Your task to perform on an android device: turn off location history Image 0: 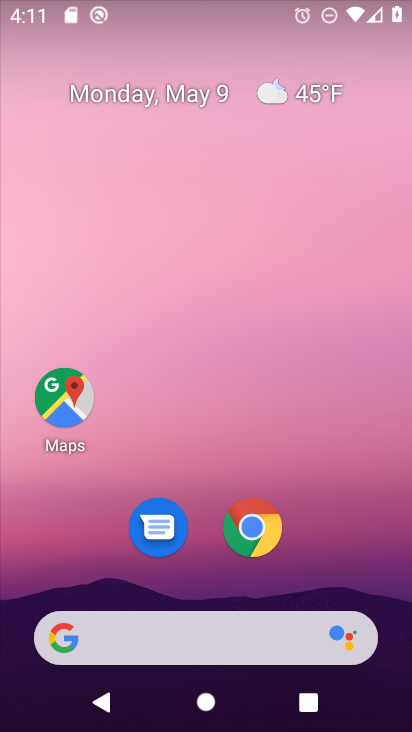
Step 0: drag from (388, 578) to (308, 178)
Your task to perform on an android device: turn off location history Image 1: 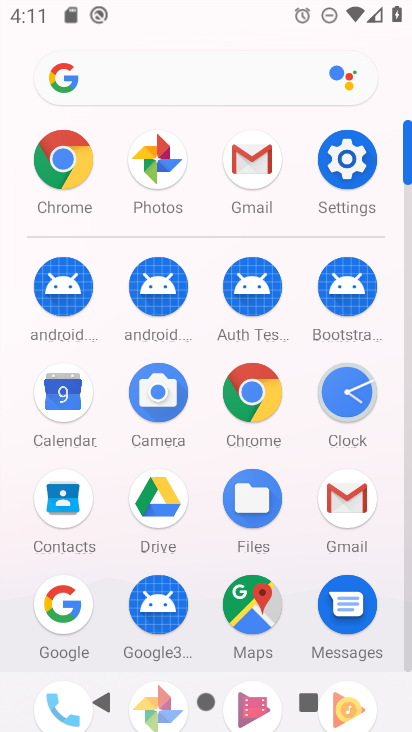
Step 1: click (264, 599)
Your task to perform on an android device: turn off location history Image 2: 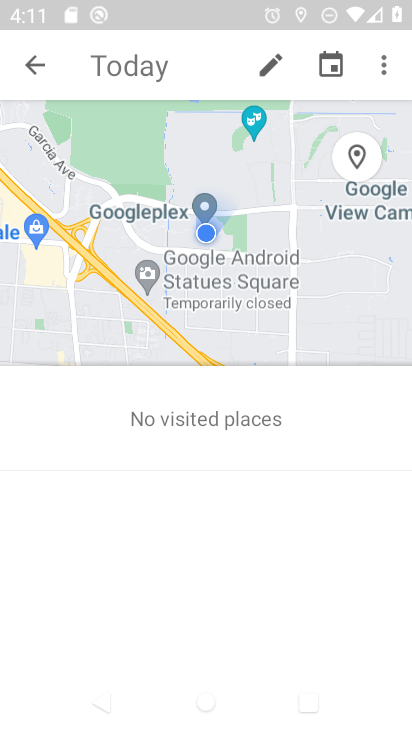
Step 2: click (373, 96)
Your task to perform on an android device: turn off location history Image 3: 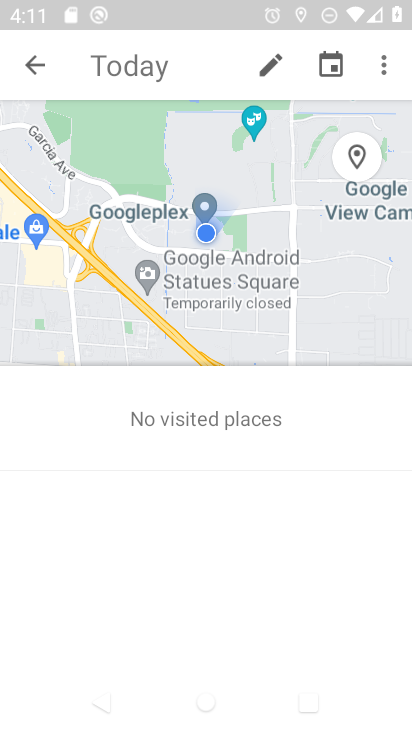
Step 3: click (388, 73)
Your task to perform on an android device: turn off location history Image 4: 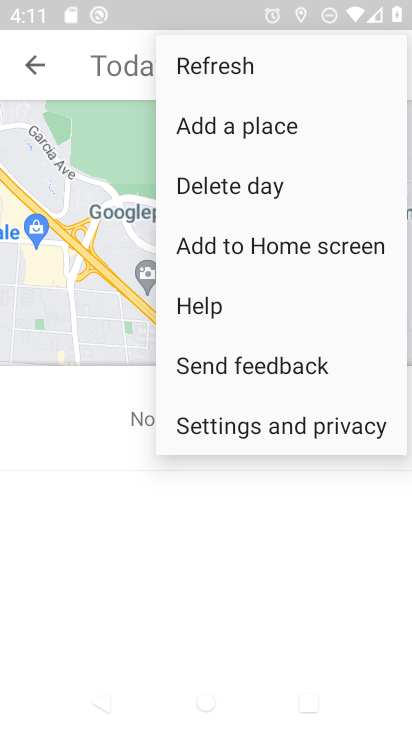
Step 4: click (311, 419)
Your task to perform on an android device: turn off location history Image 5: 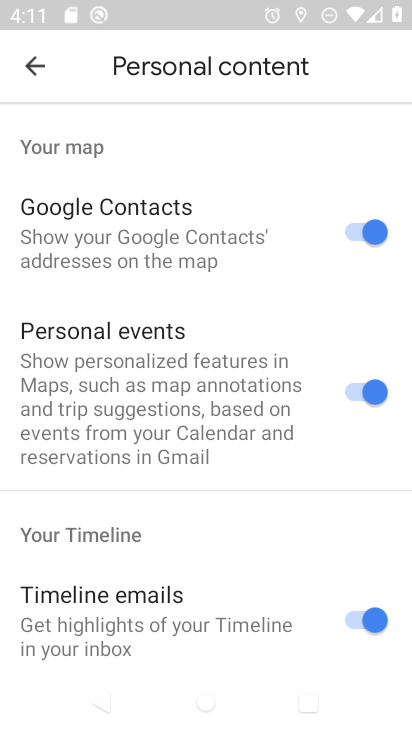
Step 5: drag from (259, 626) to (181, 131)
Your task to perform on an android device: turn off location history Image 6: 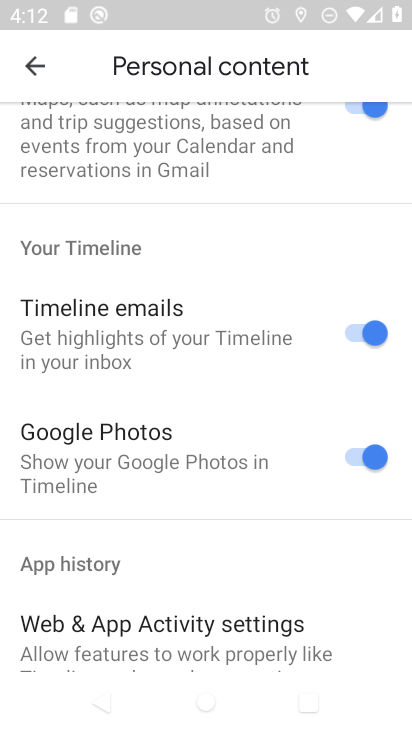
Step 6: drag from (214, 648) to (256, 245)
Your task to perform on an android device: turn off location history Image 7: 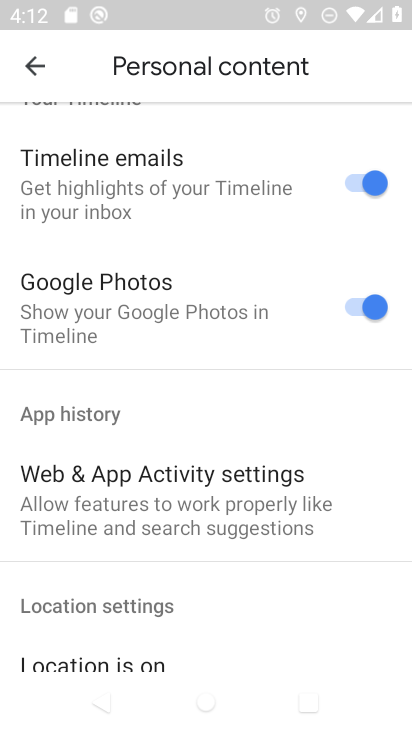
Step 7: drag from (223, 559) to (222, 165)
Your task to perform on an android device: turn off location history Image 8: 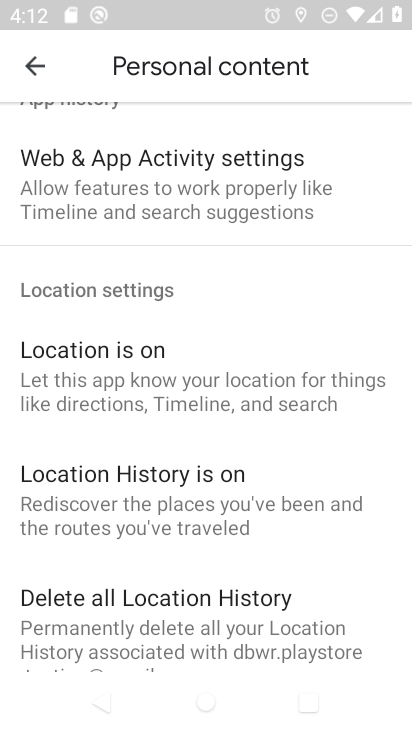
Step 8: click (257, 522)
Your task to perform on an android device: turn off location history Image 9: 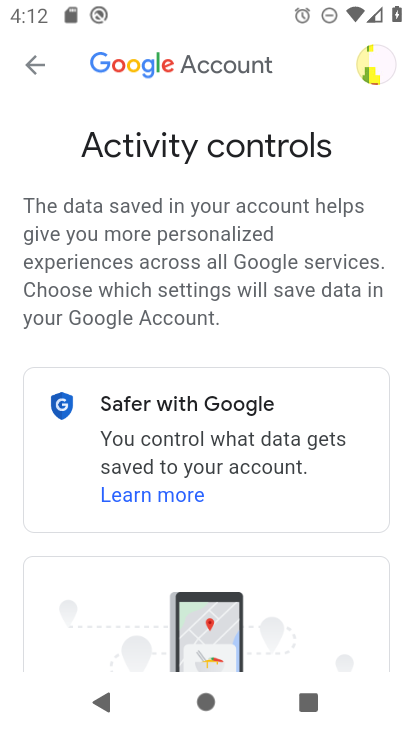
Step 9: drag from (300, 620) to (306, 306)
Your task to perform on an android device: turn off location history Image 10: 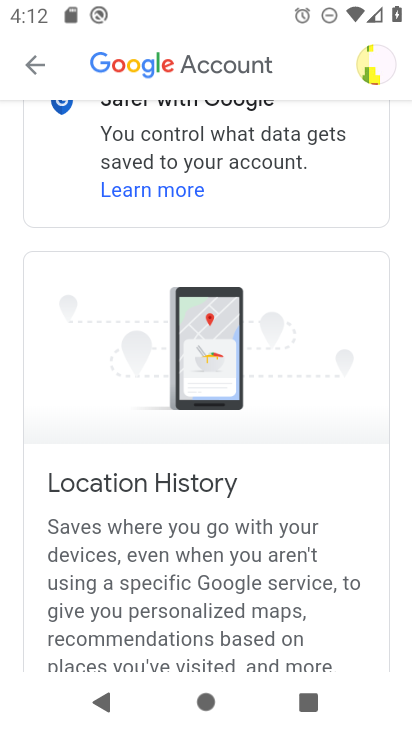
Step 10: drag from (299, 573) to (312, 253)
Your task to perform on an android device: turn off location history Image 11: 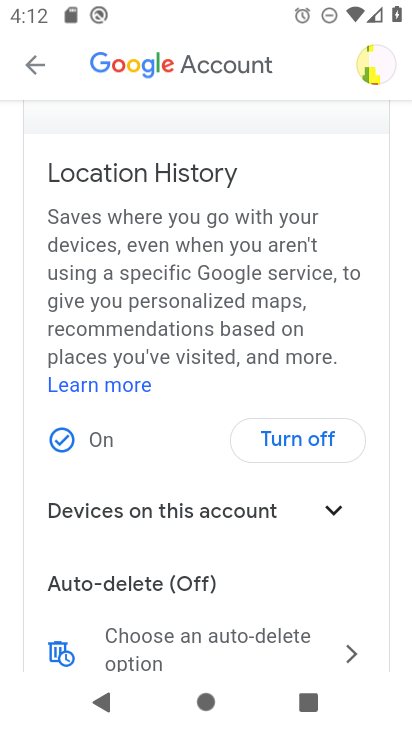
Step 11: click (278, 440)
Your task to perform on an android device: turn off location history Image 12: 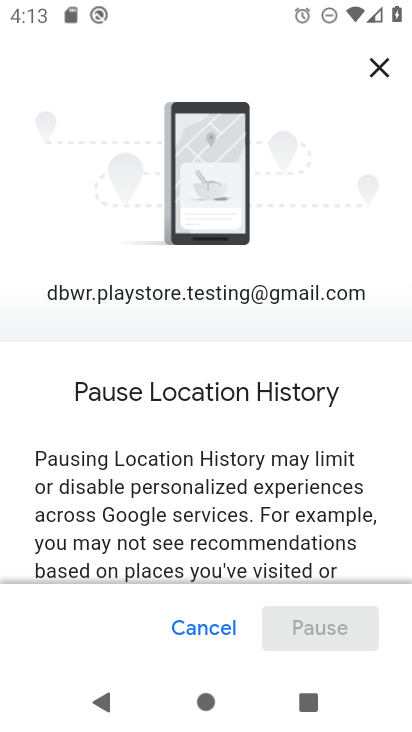
Step 12: drag from (280, 539) to (249, 55)
Your task to perform on an android device: turn off location history Image 13: 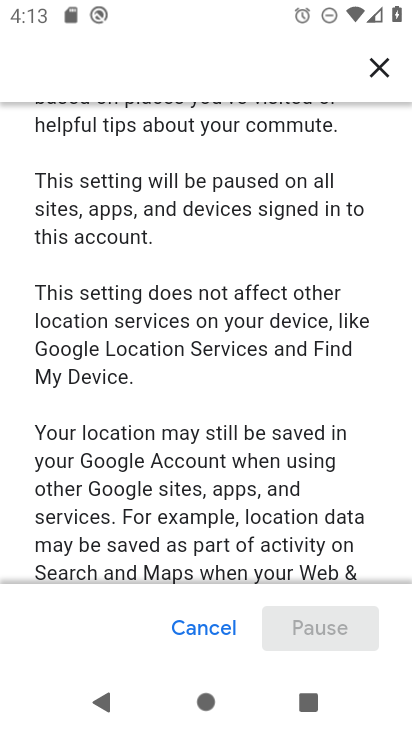
Step 13: drag from (280, 429) to (332, 60)
Your task to perform on an android device: turn off location history Image 14: 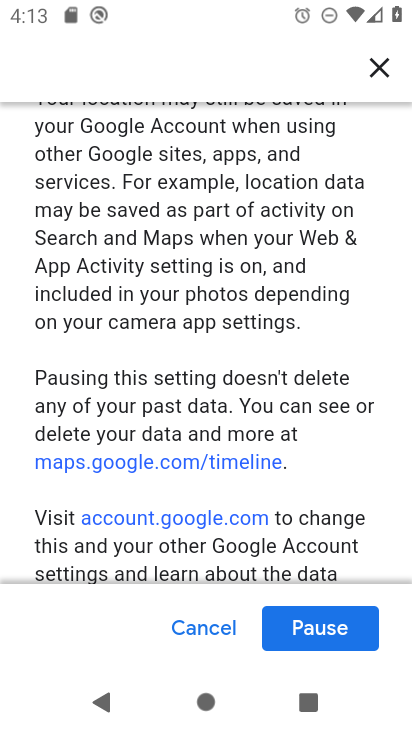
Step 14: click (318, 625)
Your task to perform on an android device: turn off location history Image 15: 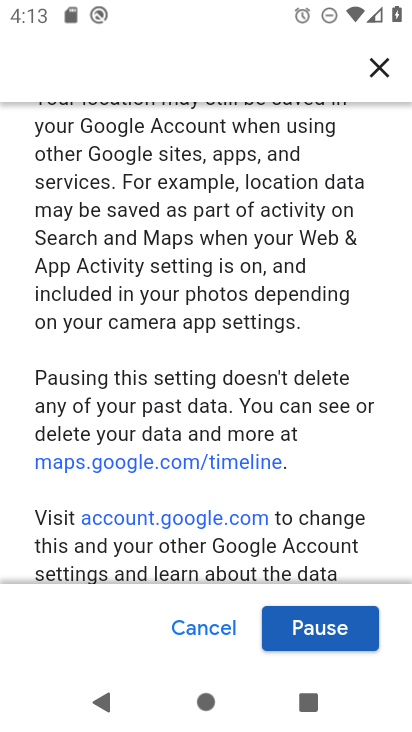
Step 15: click (318, 625)
Your task to perform on an android device: turn off location history Image 16: 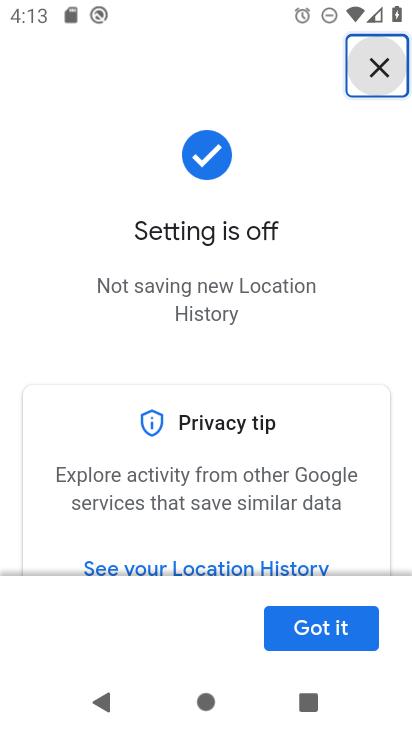
Step 16: click (318, 625)
Your task to perform on an android device: turn off location history Image 17: 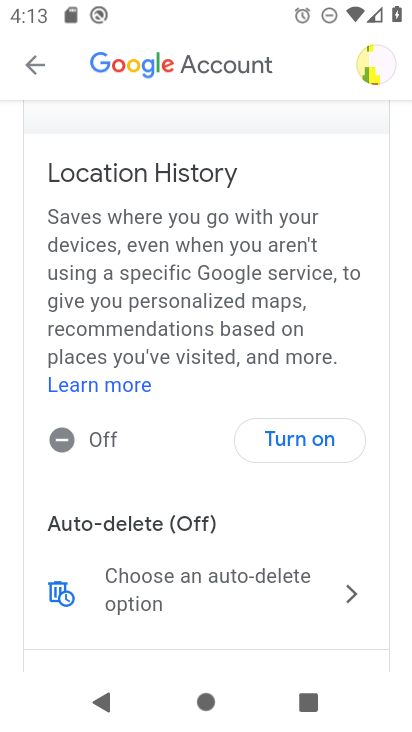
Step 17: task complete